Your task to perform on an android device: turn off javascript in the chrome app Image 0: 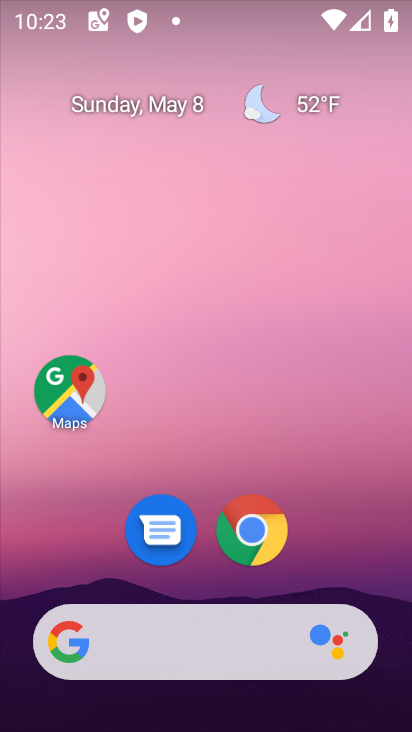
Step 0: drag from (362, 546) to (317, 83)
Your task to perform on an android device: turn off javascript in the chrome app Image 1: 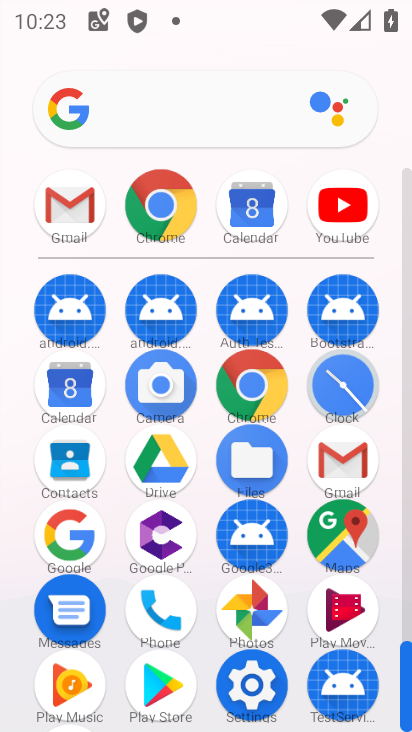
Step 1: click (274, 386)
Your task to perform on an android device: turn off javascript in the chrome app Image 2: 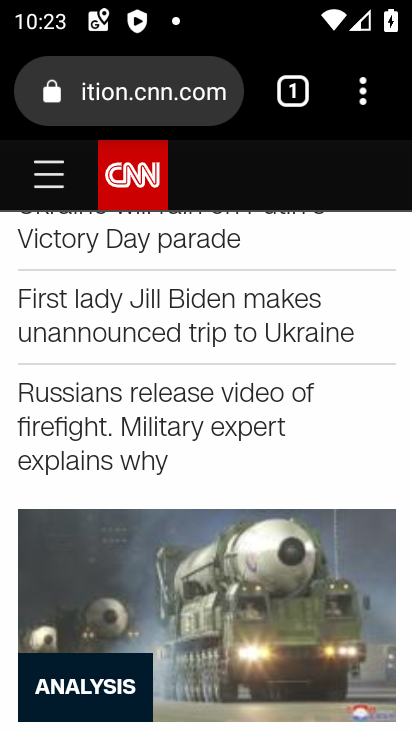
Step 2: drag from (364, 107) to (129, 558)
Your task to perform on an android device: turn off javascript in the chrome app Image 3: 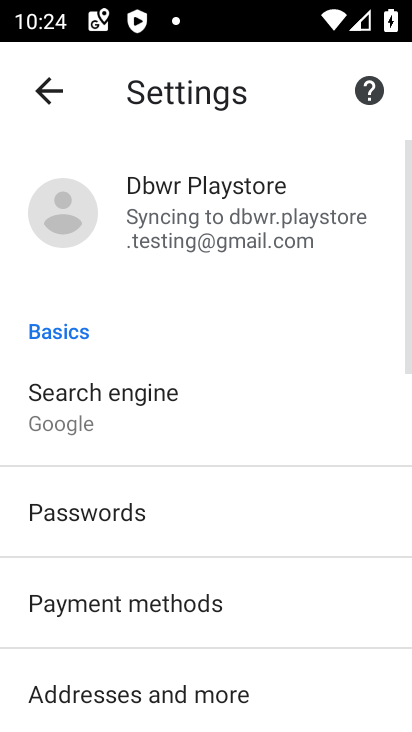
Step 3: drag from (312, 656) to (383, 288)
Your task to perform on an android device: turn off javascript in the chrome app Image 4: 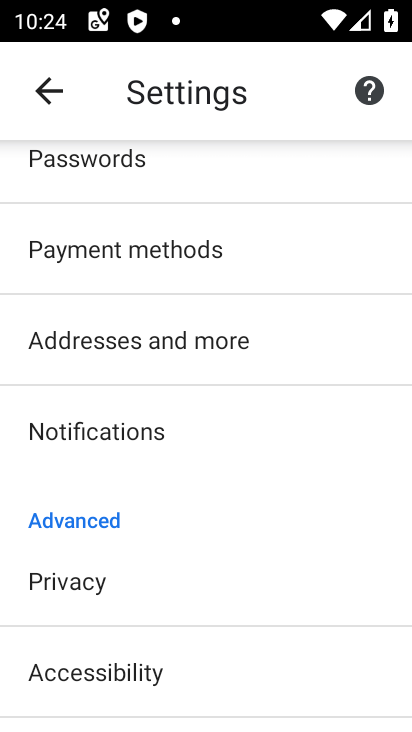
Step 4: drag from (301, 672) to (320, 311)
Your task to perform on an android device: turn off javascript in the chrome app Image 5: 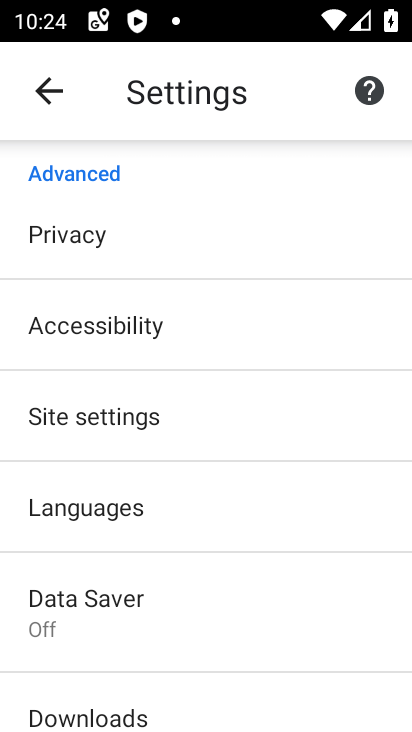
Step 5: drag from (264, 663) to (313, 352)
Your task to perform on an android device: turn off javascript in the chrome app Image 6: 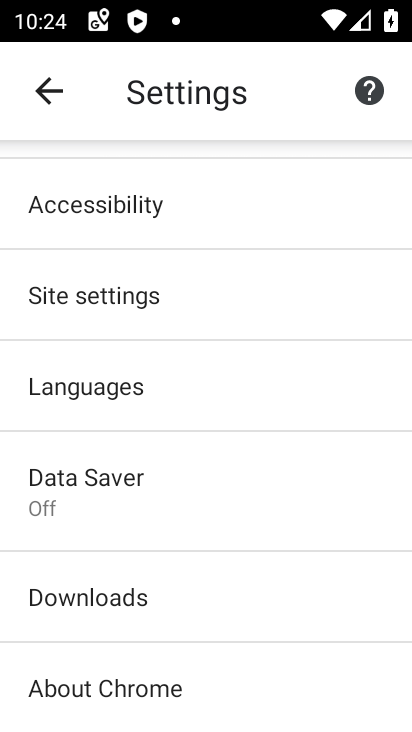
Step 6: click (76, 302)
Your task to perform on an android device: turn off javascript in the chrome app Image 7: 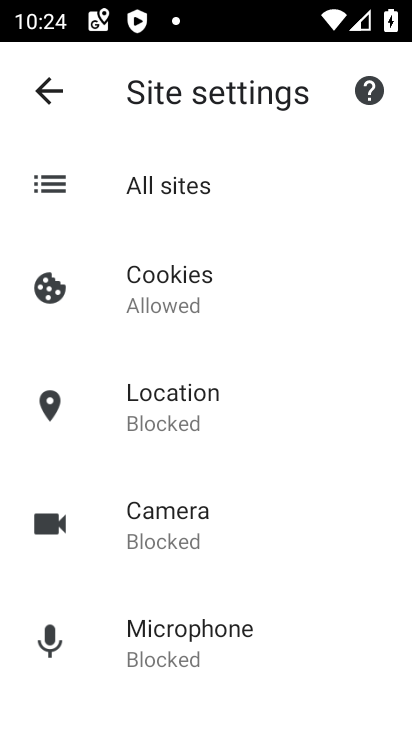
Step 7: drag from (270, 670) to (330, 319)
Your task to perform on an android device: turn off javascript in the chrome app Image 8: 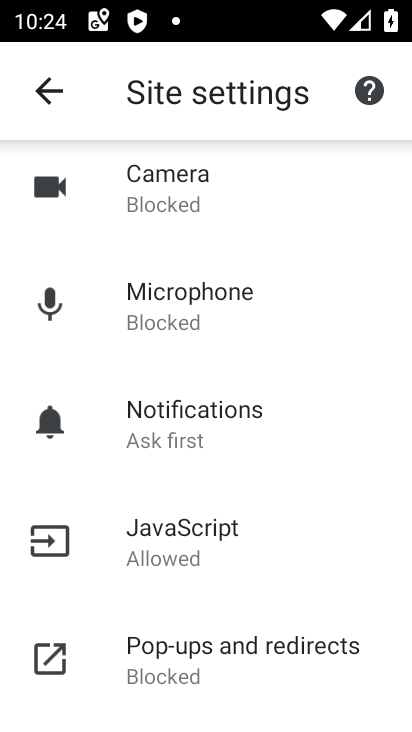
Step 8: click (240, 535)
Your task to perform on an android device: turn off javascript in the chrome app Image 9: 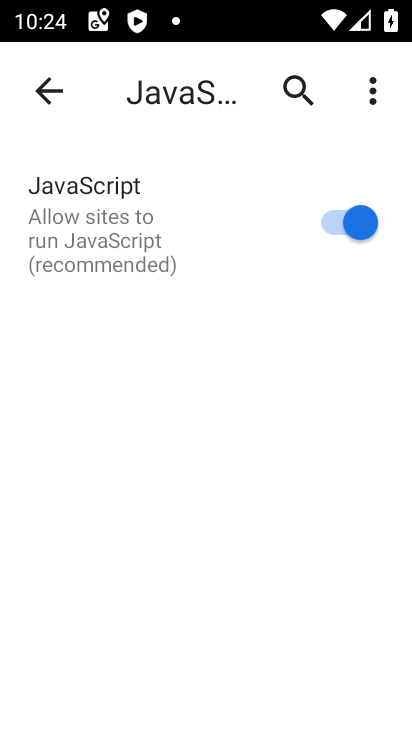
Step 9: click (321, 231)
Your task to perform on an android device: turn off javascript in the chrome app Image 10: 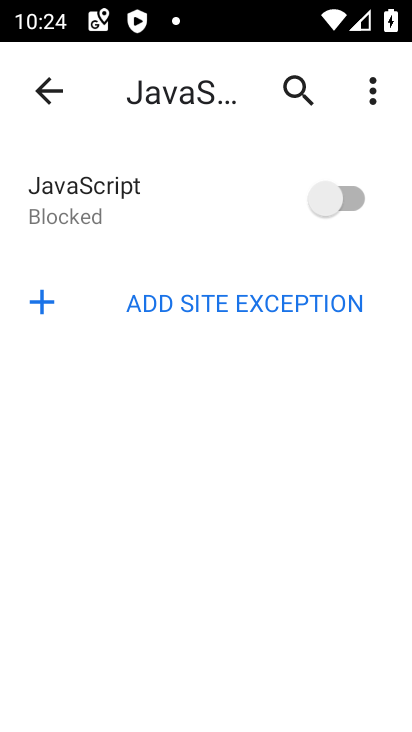
Step 10: task complete